Your task to perform on an android device: turn off notifications in google photos Image 0: 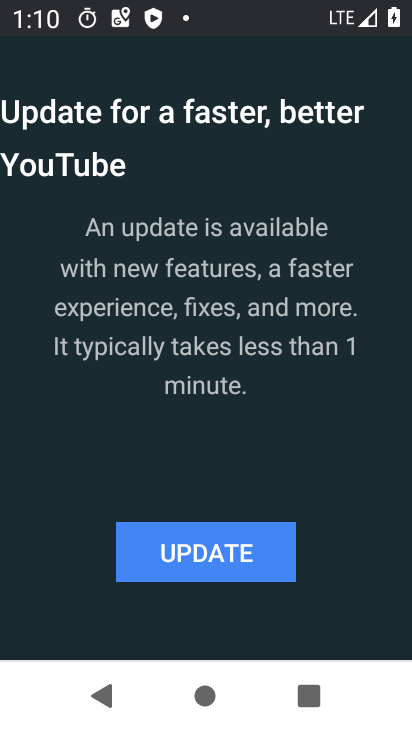
Step 0: press home button
Your task to perform on an android device: turn off notifications in google photos Image 1: 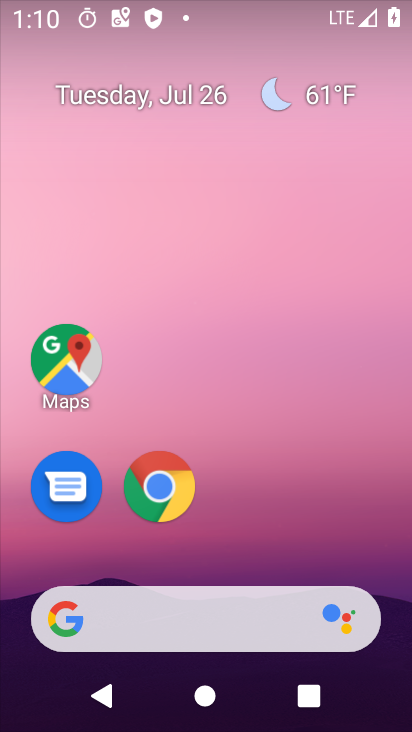
Step 1: drag from (356, 509) to (372, 110)
Your task to perform on an android device: turn off notifications in google photos Image 2: 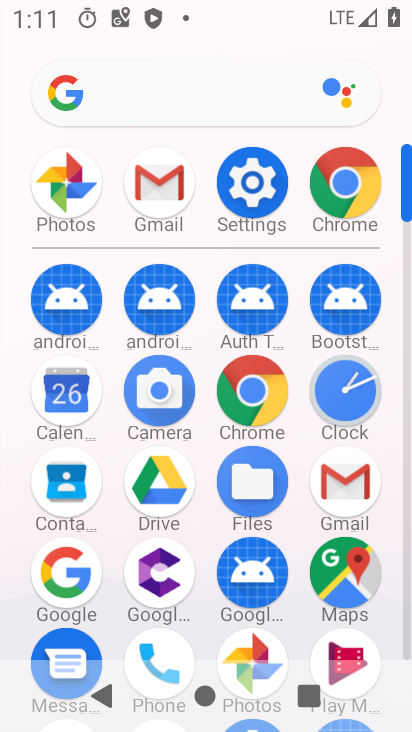
Step 2: drag from (401, 472) to (402, 303)
Your task to perform on an android device: turn off notifications in google photos Image 3: 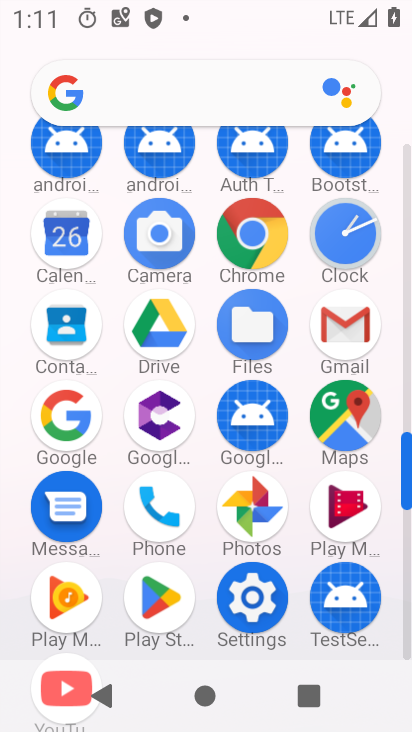
Step 3: click (259, 497)
Your task to perform on an android device: turn off notifications in google photos Image 4: 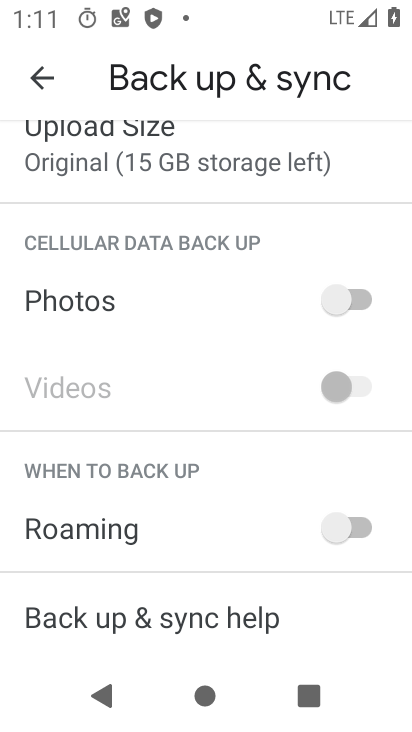
Step 4: press back button
Your task to perform on an android device: turn off notifications in google photos Image 5: 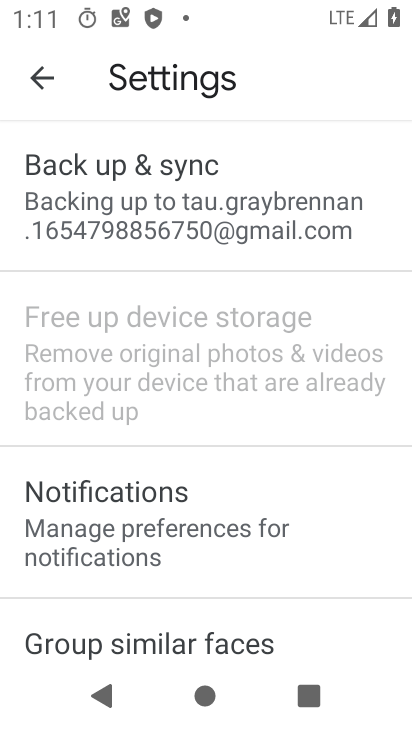
Step 5: drag from (335, 560) to (335, 426)
Your task to perform on an android device: turn off notifications in google photos Image 6: 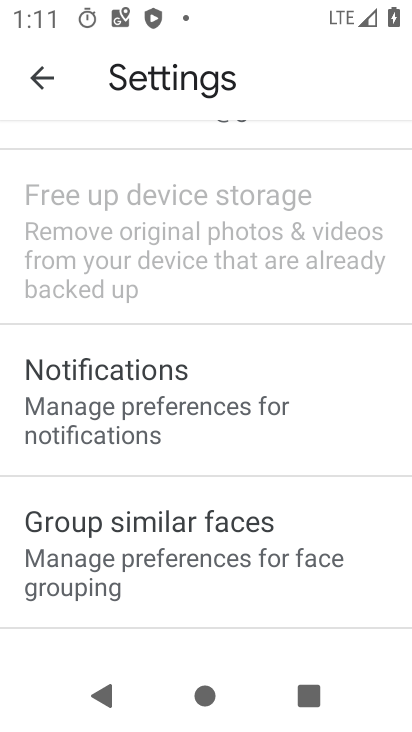
Step 6: click (244, 404)
Your task to perform on an android device: turn off notifications in google photos Image 7: 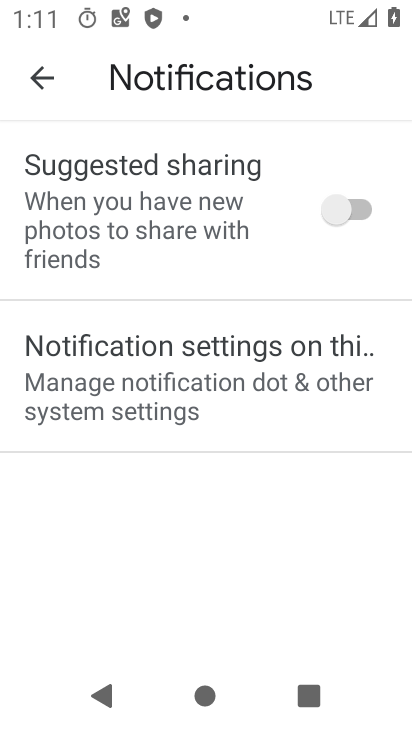
Step 7: click (246, 403)
Your task to perform on an android device: turn off notifications in google photos Image 8: 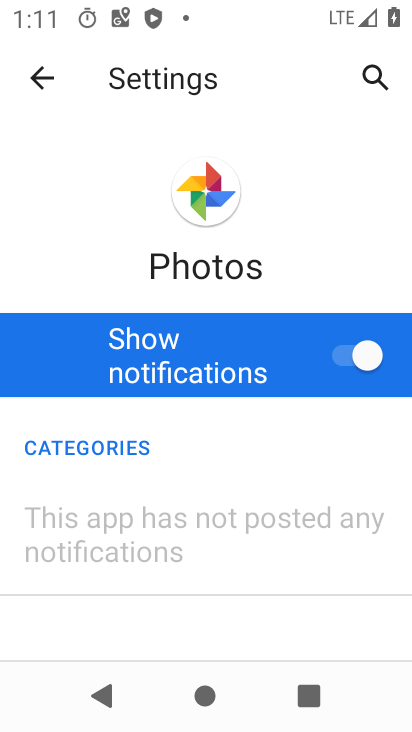
Step 8: click (348, 361)
Your task to perform on an android device: turn off notifications in google photos Image 9: 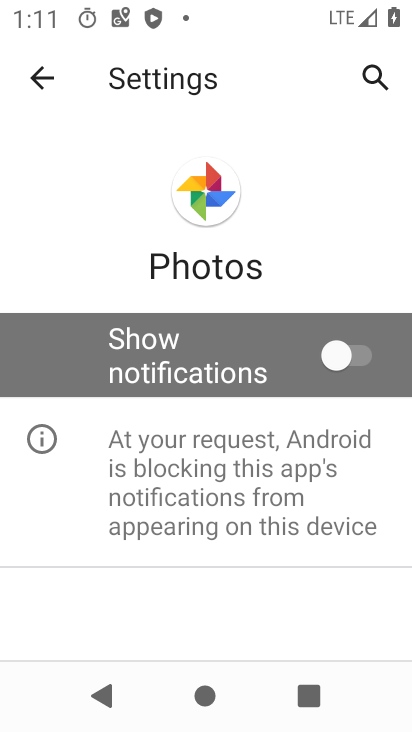
Step 9: task complete